Your task to perform on an android device: Google the capital of Peru Image 0: 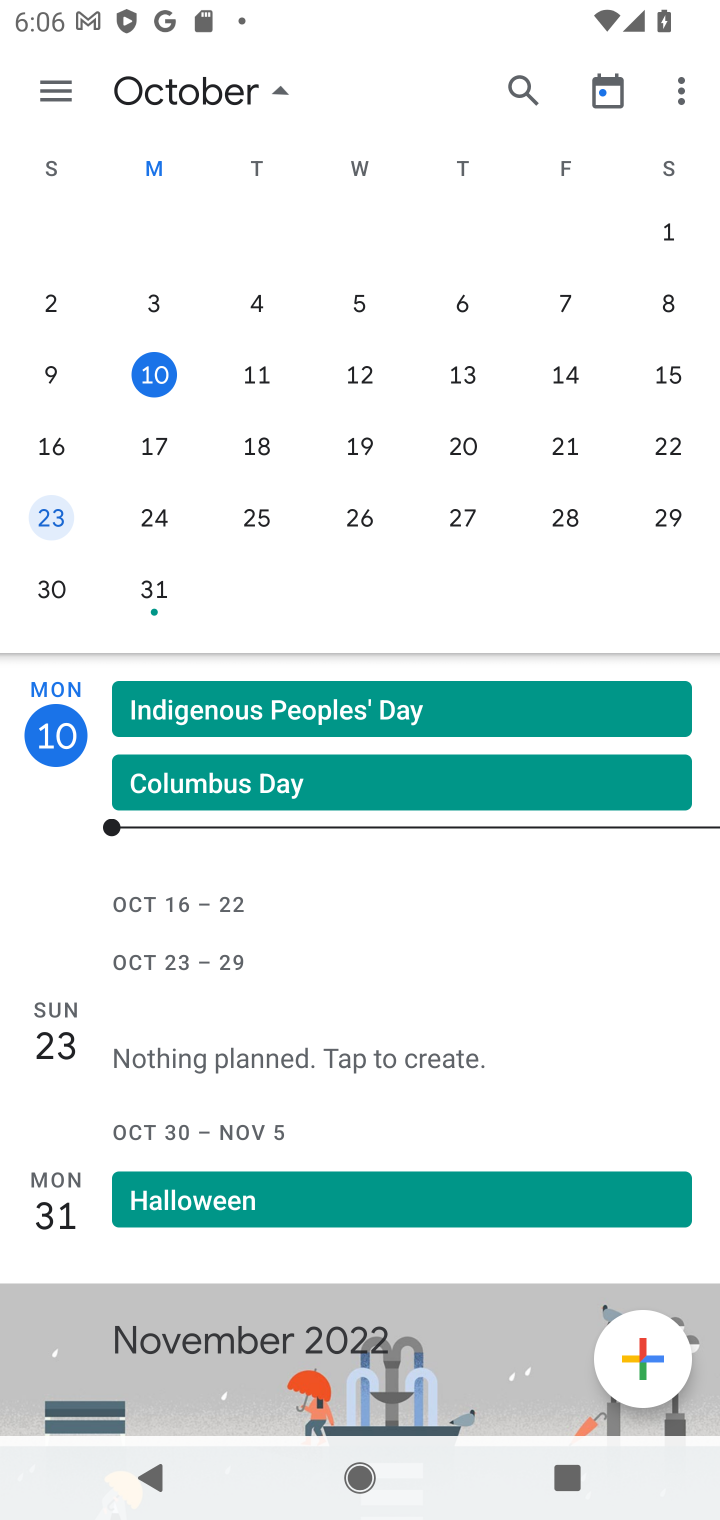
Step 0: press home button
Your task to perform on an android device: Google the capital of Peru Image 1: 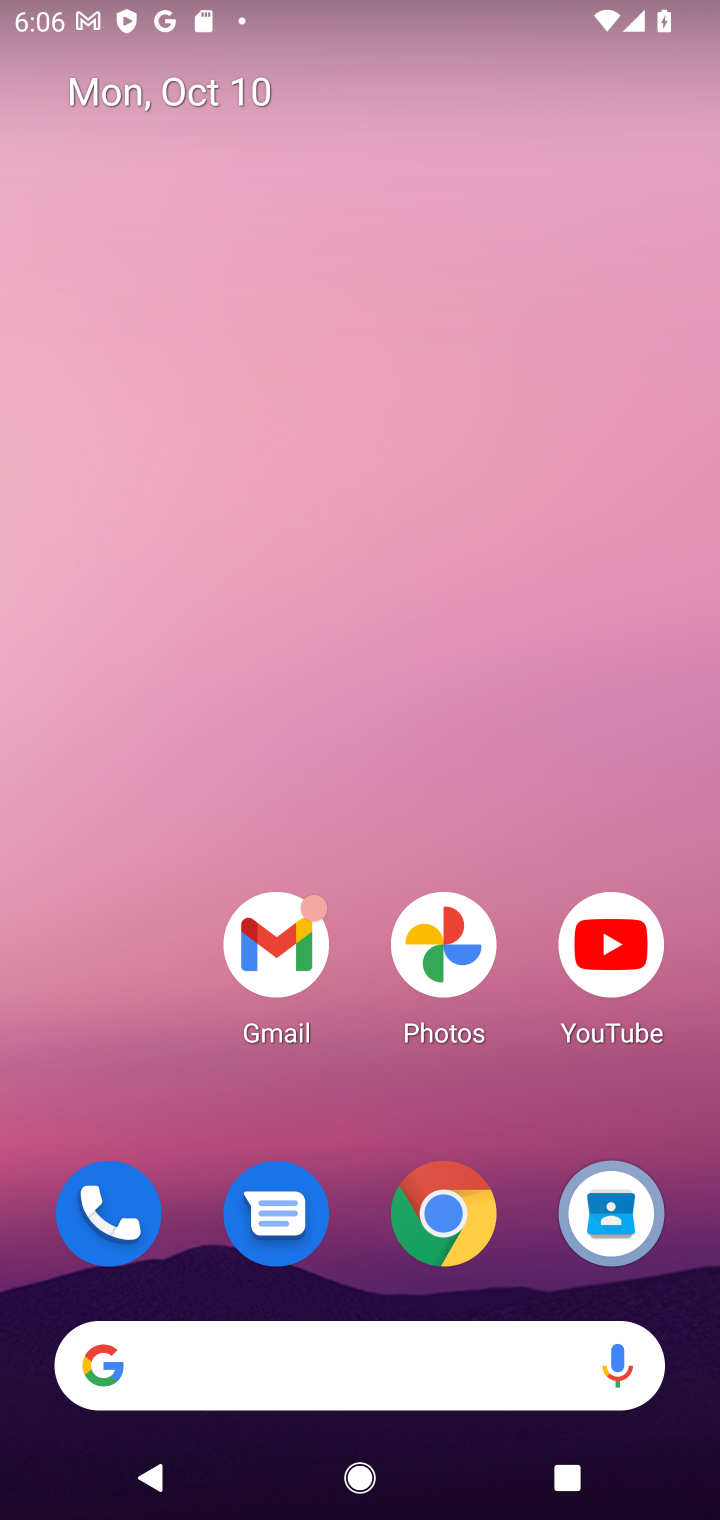
Step 1: click (370, 1354)
Your task to perform on an android device: Google the capital of Peru Image 2: 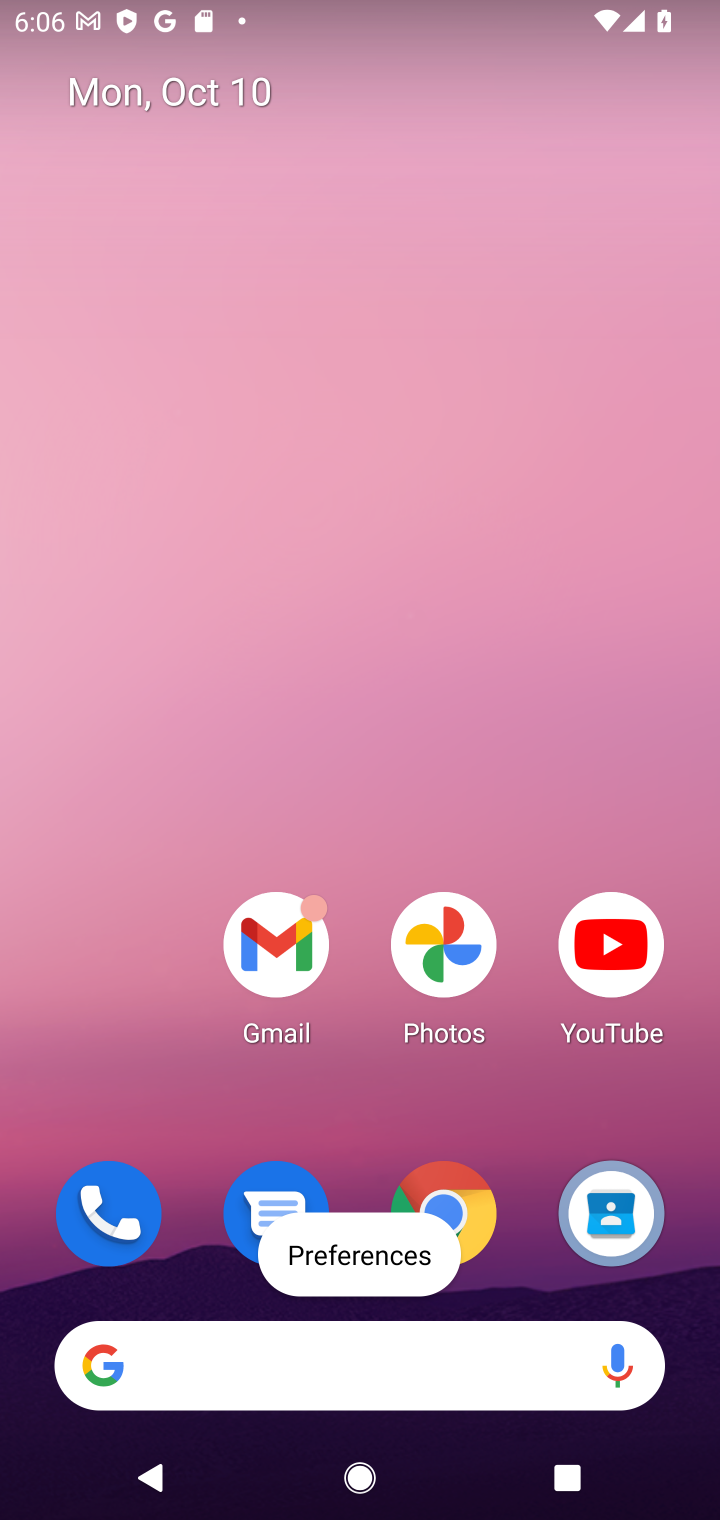
Step 2: click (320, 1354)
Your task to perform on an android device: Google the capital of Peru Image 3: 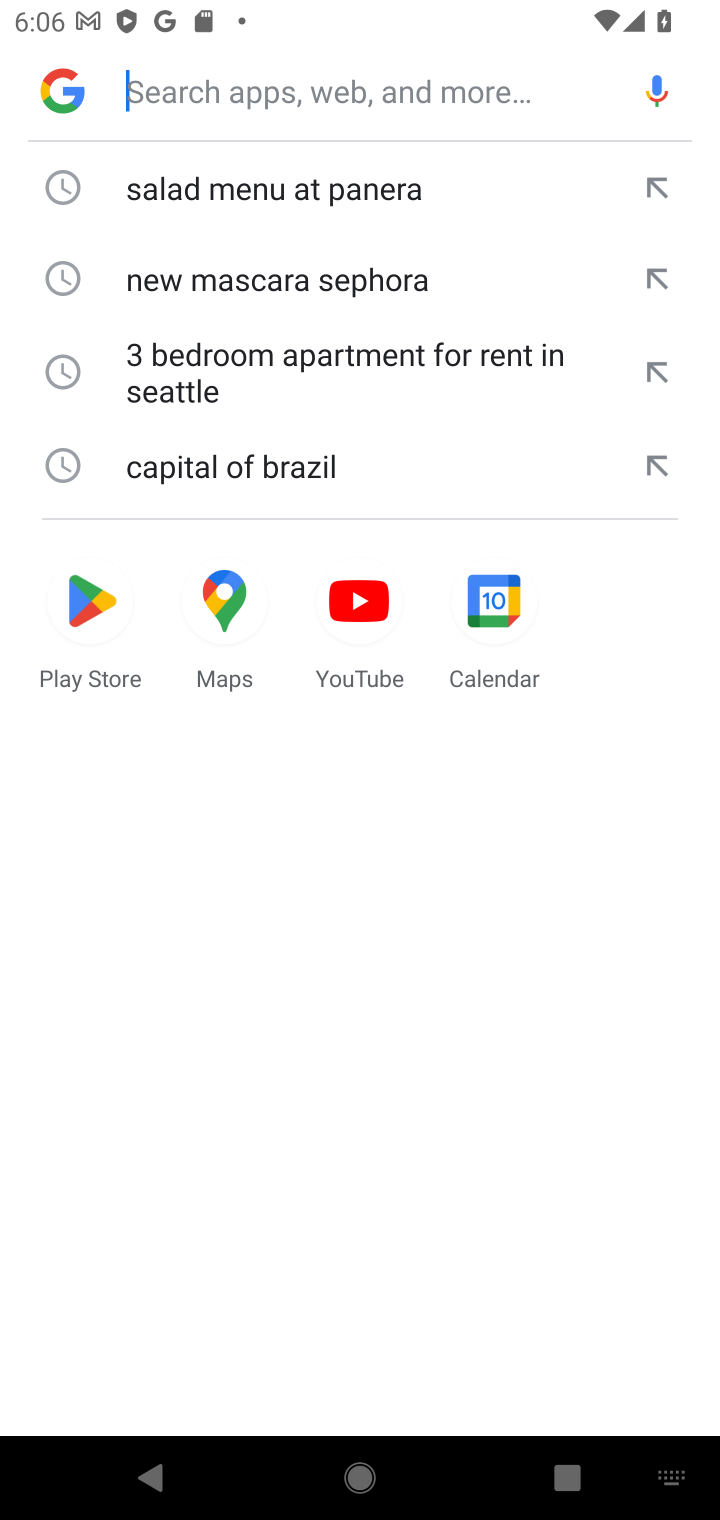
Step 3: type "capital of Peru"
Your task to perform on an android device: Google the capital of Peru Image 4: 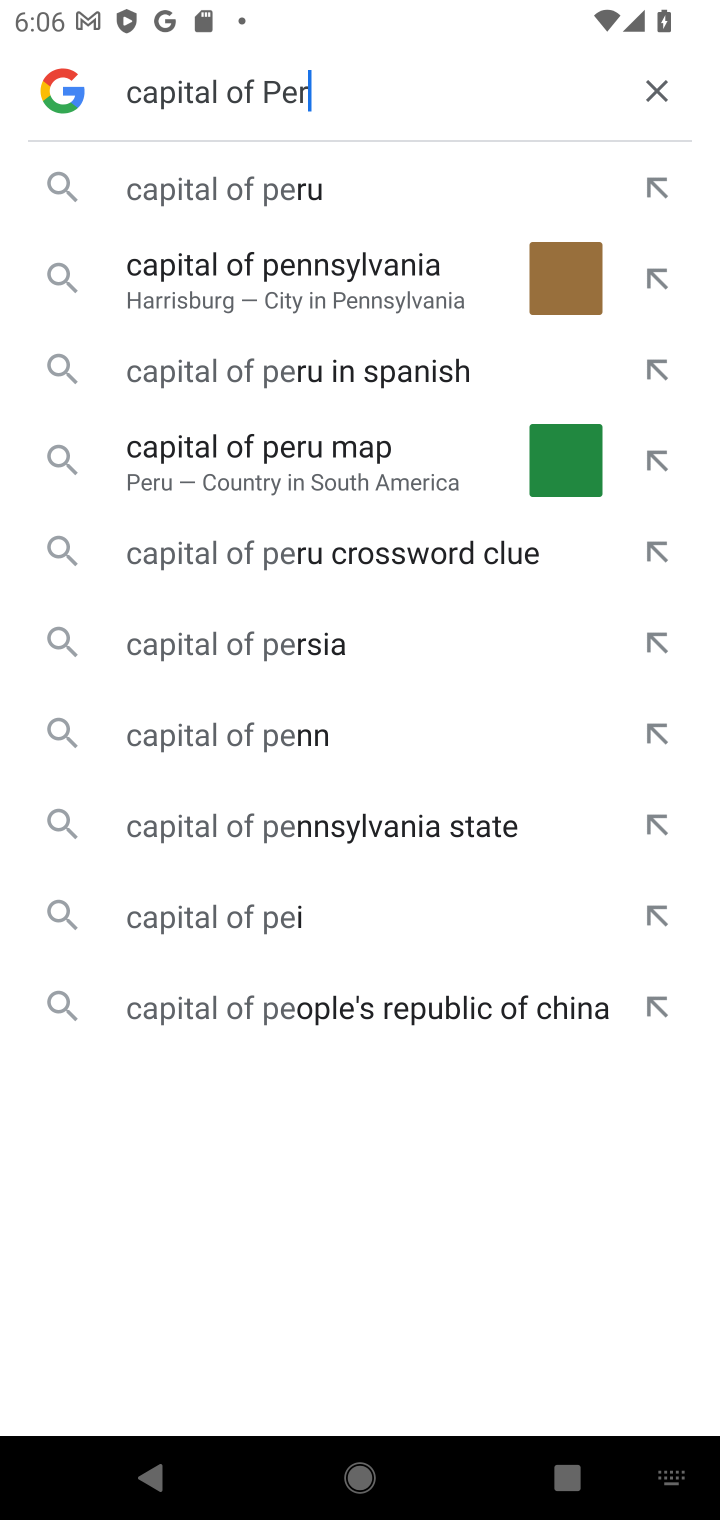
Step 4: type ""
Your task to perform on an android device: Google the capital of Peru Image 5: 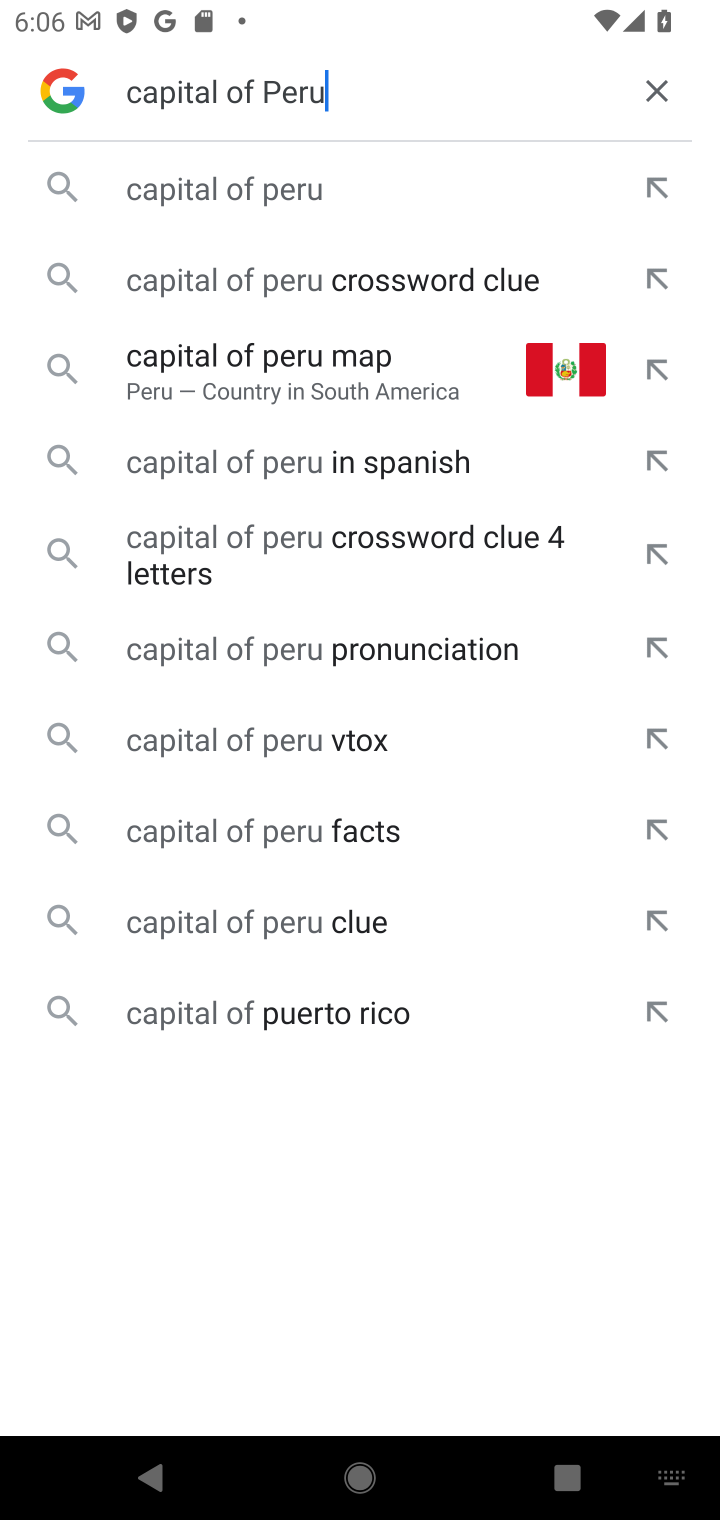
Step 5: click (213, 172)
Your task to perform on an android device: Google the capital of Peru Image 6: 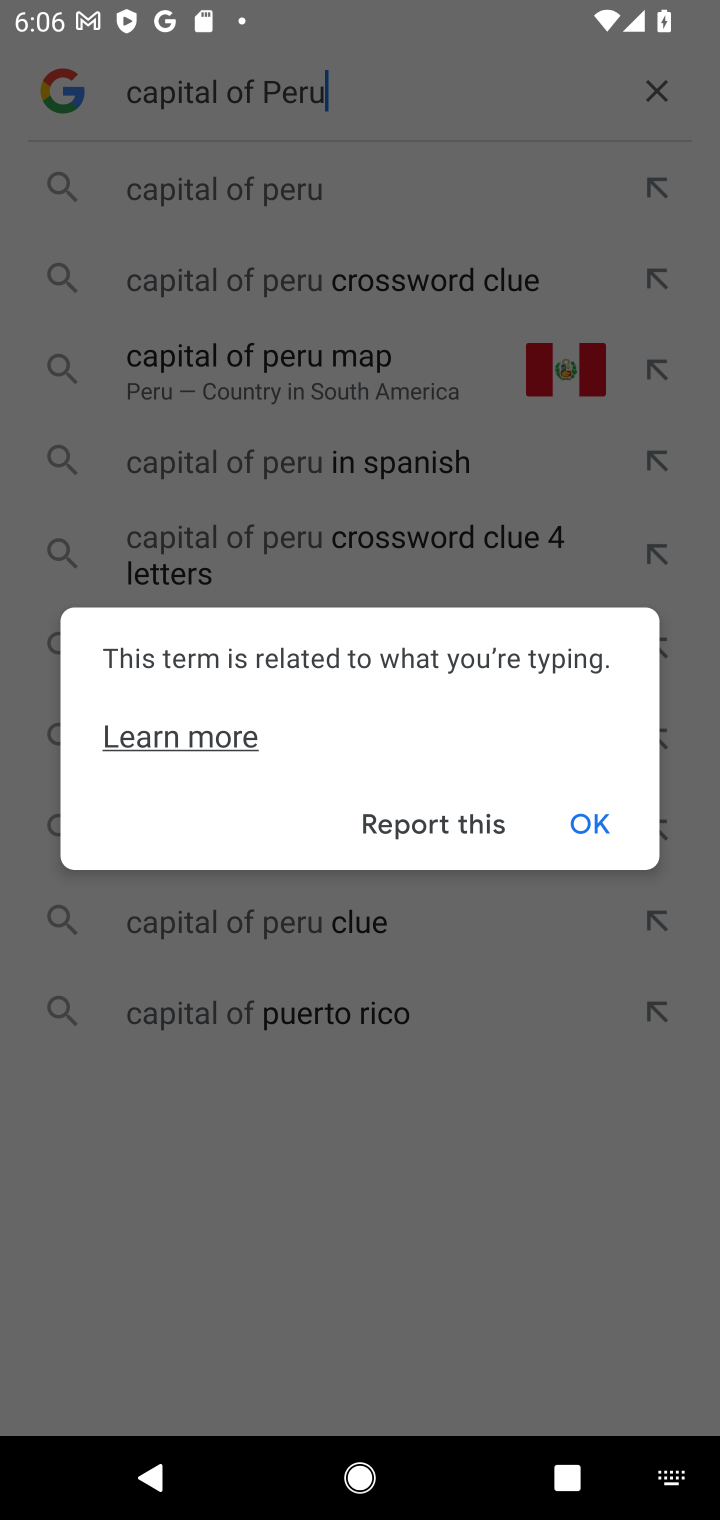
Step 6: click (599, 801)
Your task to perform on an android device: Google the capital of Peru Image 7: 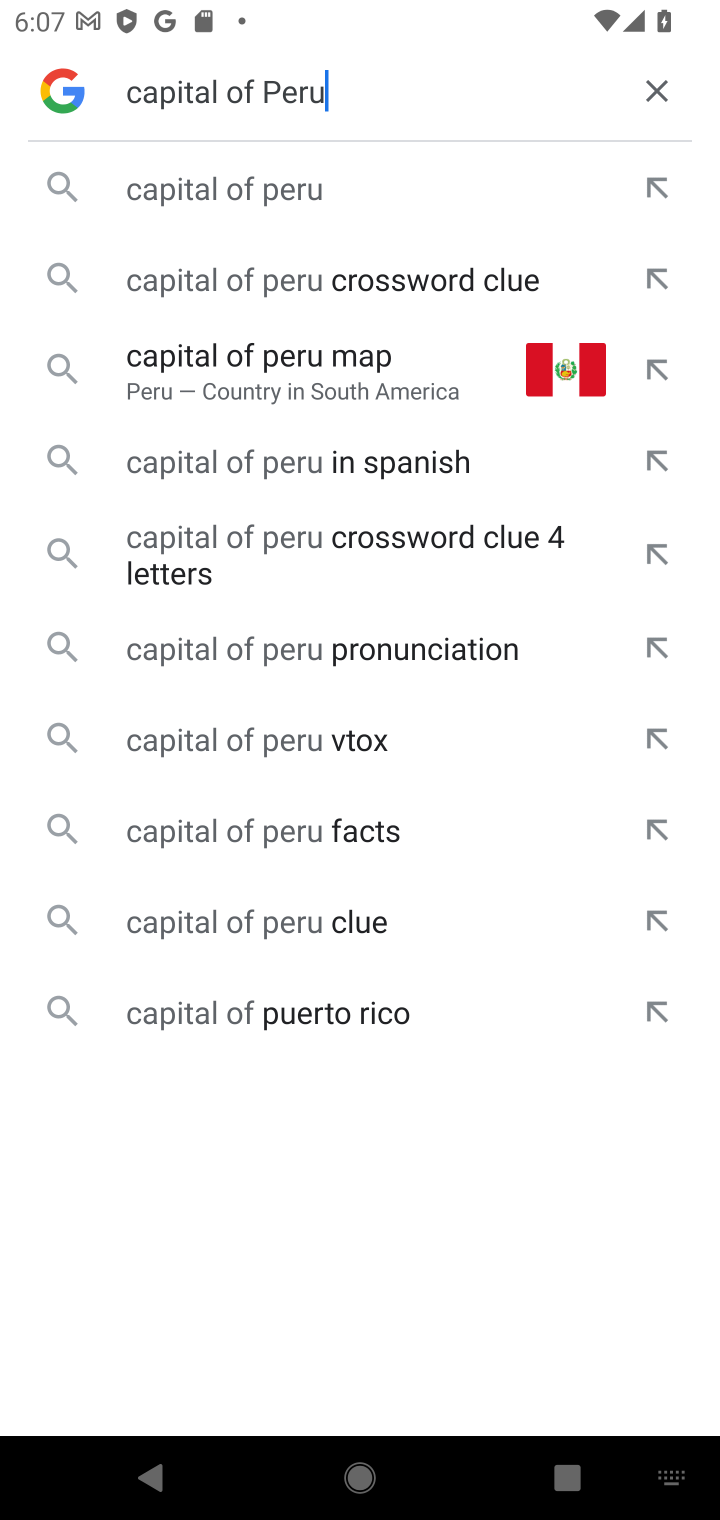
Step 7: click (151, 197)
Your task to perform on an android device: Google the capital of Peru Image 8: 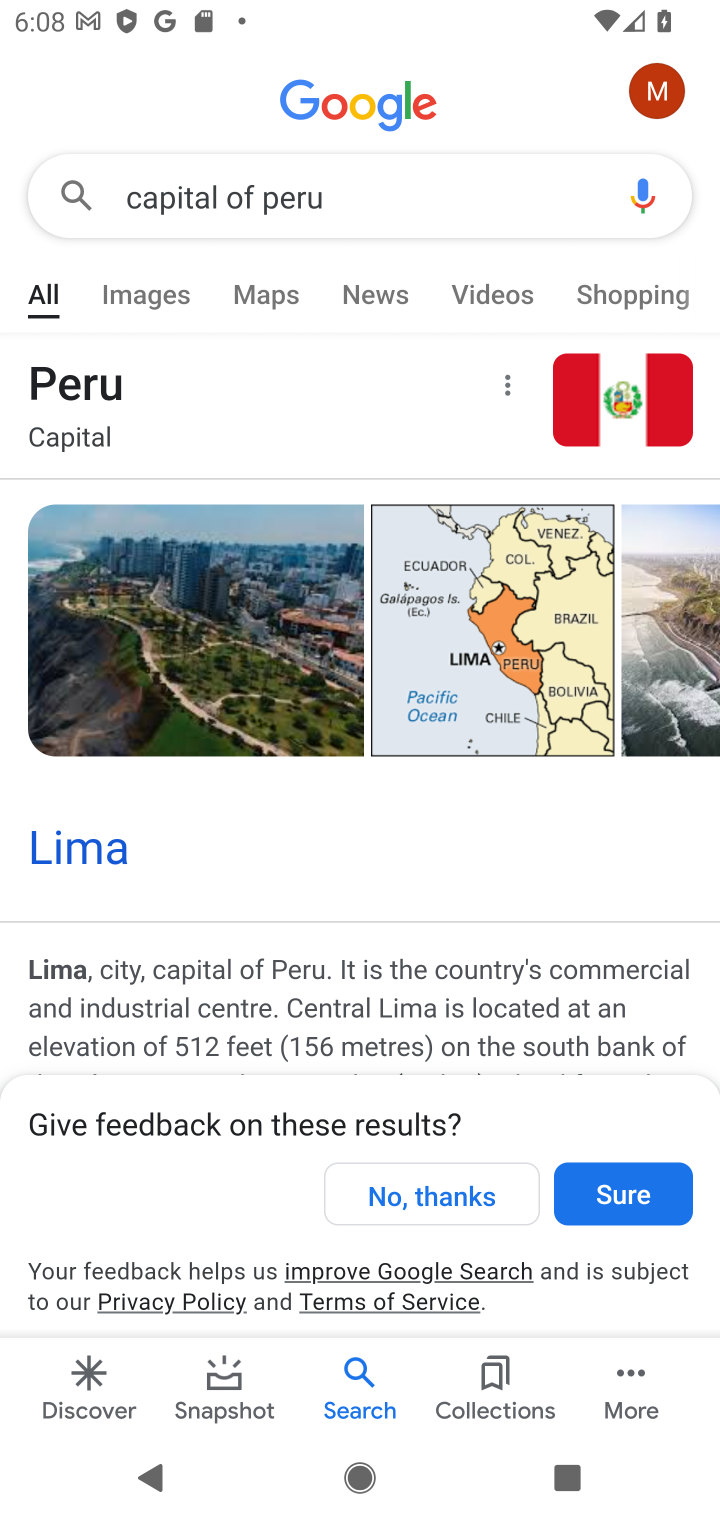
Step 8: task complete